Your task to perform on an android device: see creations saved in the google photos Image 0: 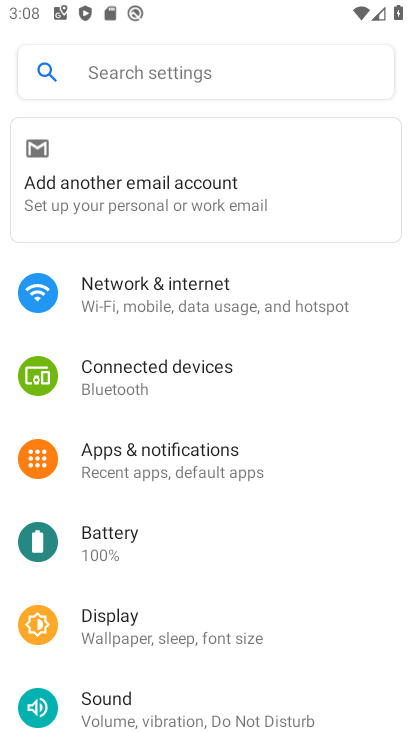
Step 0: press home button
Your task to perform on an android device: see creations saved in the google photos Image 1: 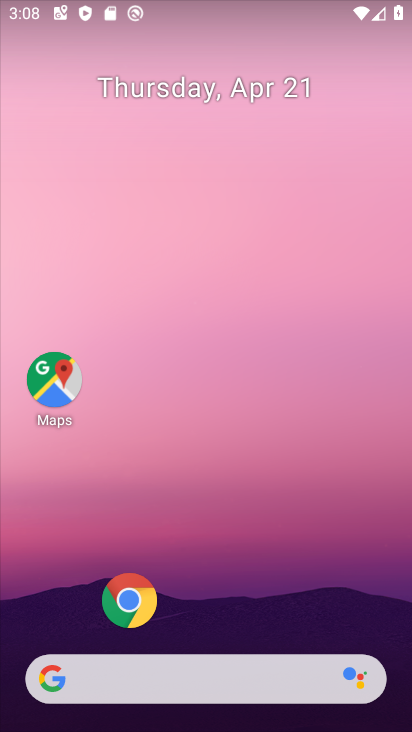
Step 1: drag from (98, 452) to (237, 168)
Your task to perform on an android device: see creations saved in the google photos Image 2: 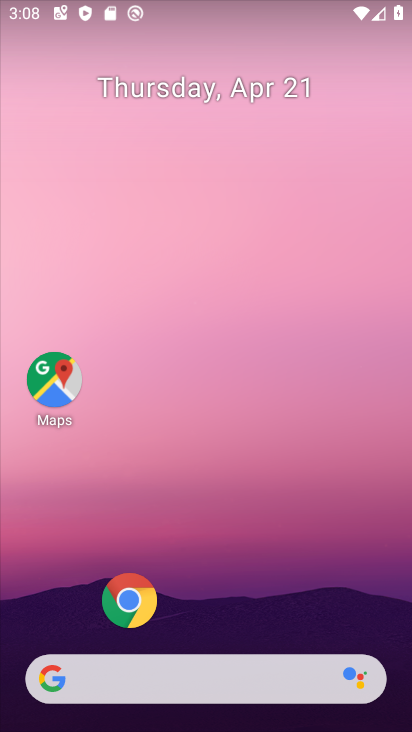
Step 2: drag from (12, 615) to (275, 60)
Your task to perform on an android device: see creations saved in the google photos Image 3: 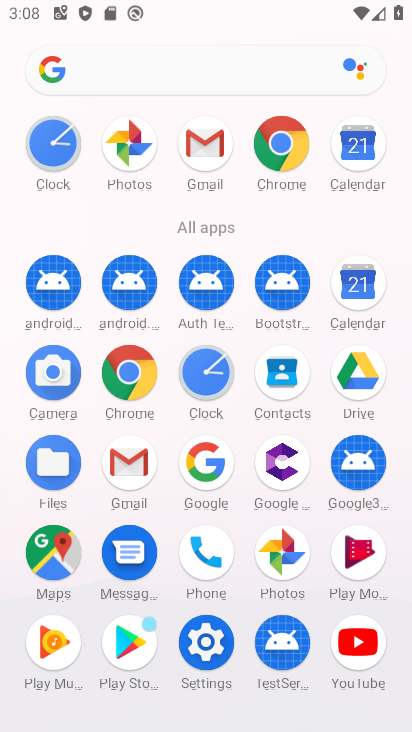
Step 3: click (130, 147)
Your task to perform on an android device: see creations saved in the google photos Image 4: 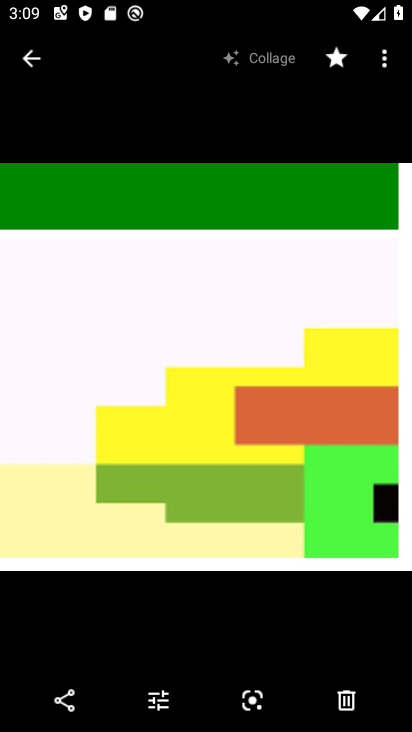
Step 4: press back button
Your task to perform on an android device: see creations saved in the google photos Image 5: 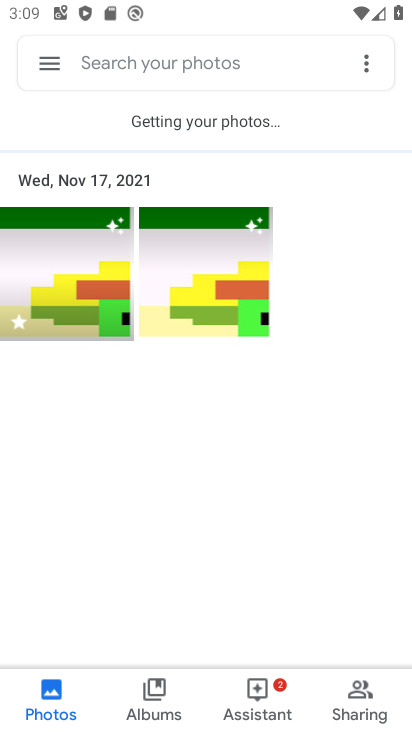
Step 5: click (97, 47)
Your task to perform on an android device: see creations saved in the google photos Image 6: 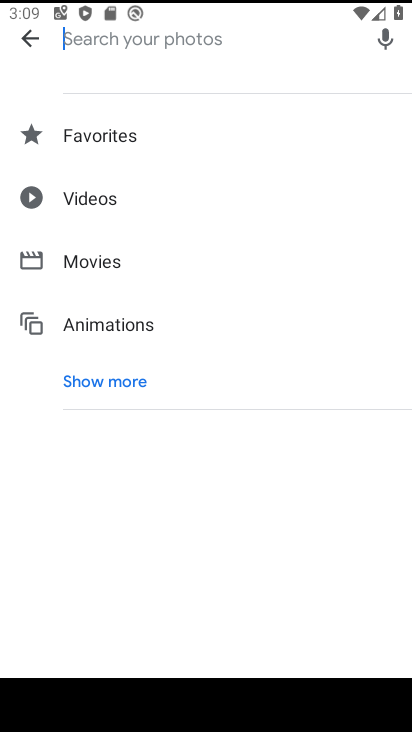
Step 6: click (96, 374)
Your task to perform on an android device: see creations saved in the google photos Image 7: 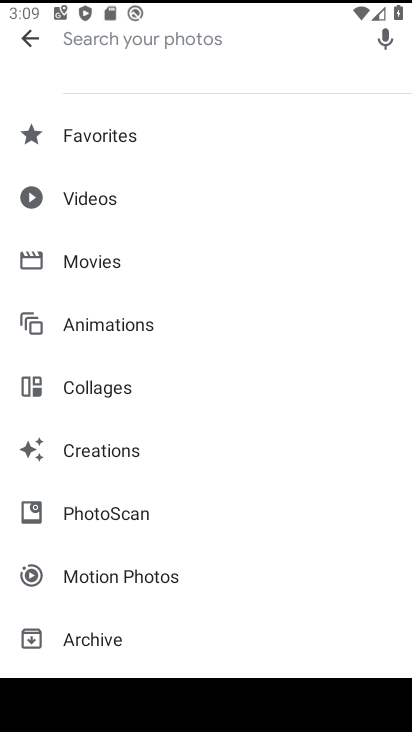
Step 7: click (104, 457)
Your task to perform on an android device: see creations saved in the google photos Image 8: 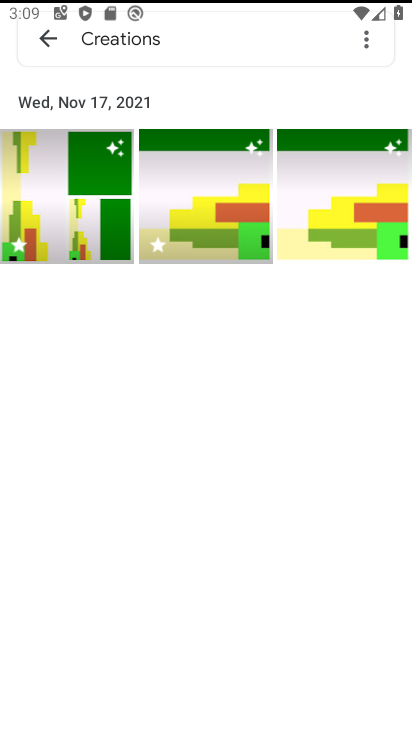
Step 8: task complete